Your task to perform on an android device: delete browsing data in the chrome app Image 0: 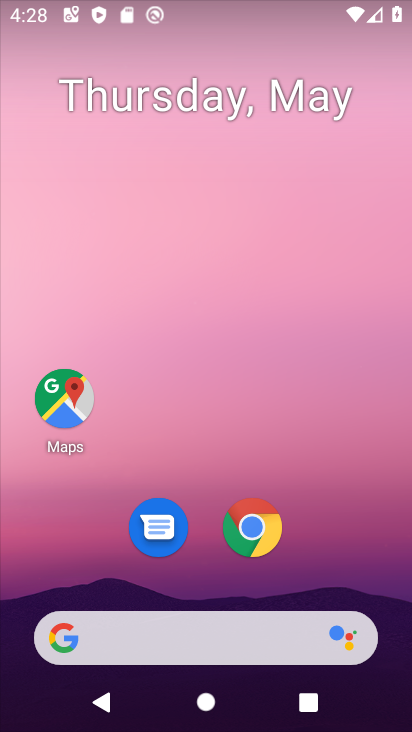
Step 0: drag from (313, 252) to (208, 2)
Your task to perform on an android device: delete browsing data in the chrome app Image 1: 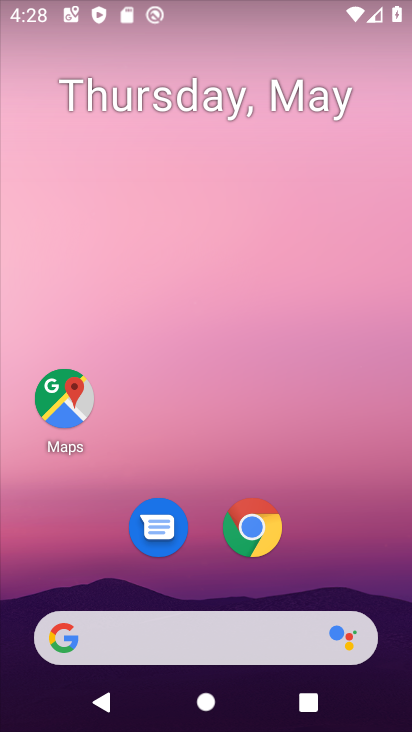
Step 1: drag from (345, 512) to (354, 52)
Your task to perform on an android device: delete browsing data in the chrome app Image 2: 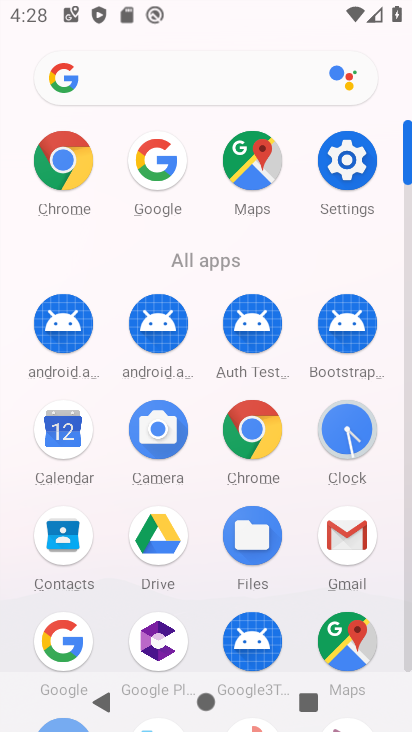
Step 2: click (58, 174)
Your task to perform on an android device: delete browsing data in the chrome app Image 3: 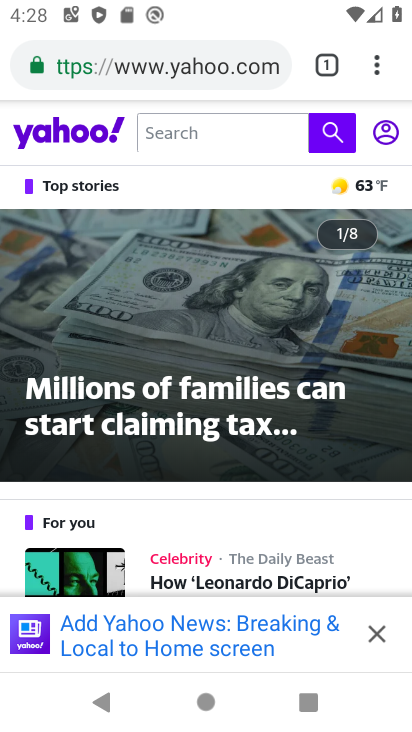
Step 3: drag from (375, 64) to (156, 392)
Your task to perform on an android device: delete browsing data in the chrome app Image 4: 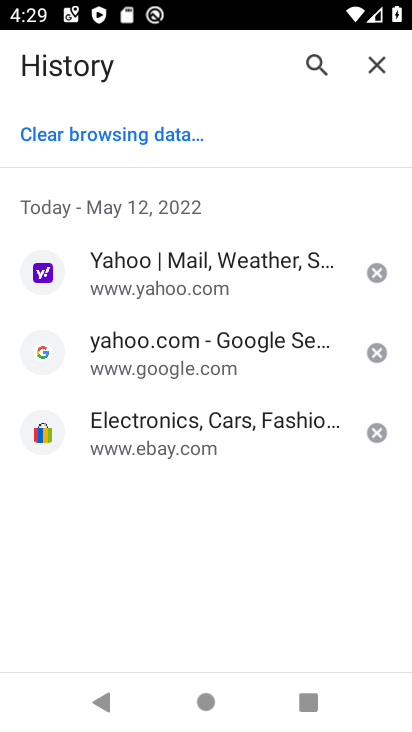
Step 4: click (102, 137)
Your task to perform on an android device: delete browsing data in the chrome app Image 5: 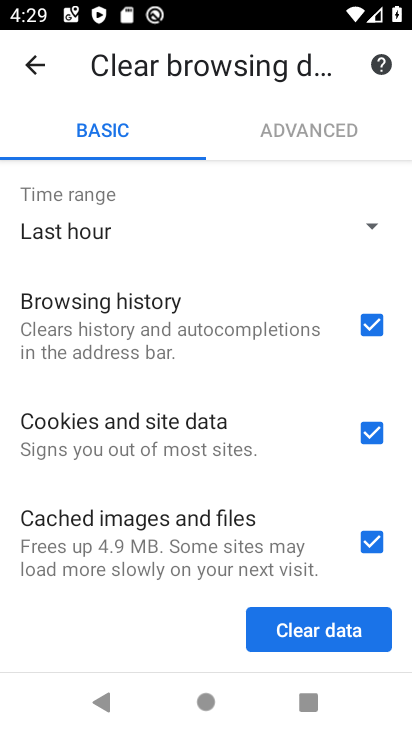
Step 5: click (291, 621)
Your task to perform on an android device: delete browsing data in the chrome app Image 6: 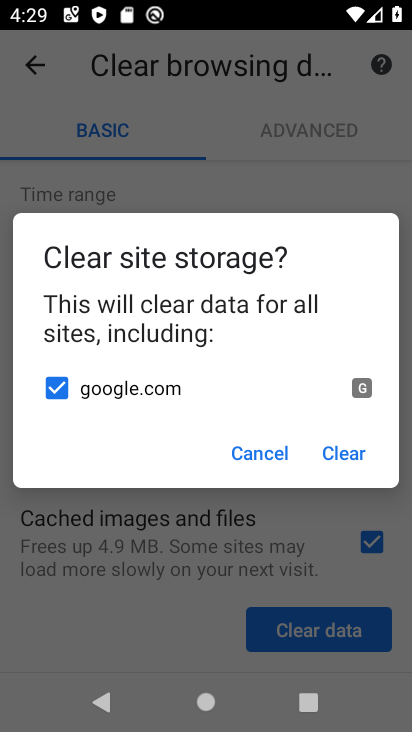
Step 6: click (338, 461)
Your task to perform on an android device: delete browsing data in the chrome app Image 7: 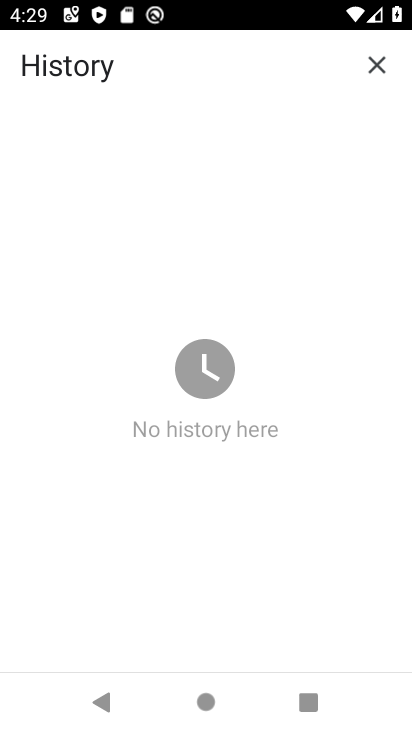
Step 7: task complete